Your task to perform on an android device: Turn off the flashlight Image 0: 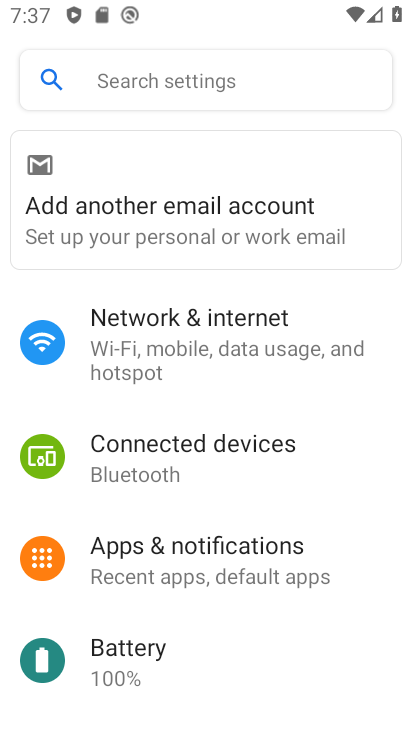
Step 0: press home button
Your task to perform on an android device: Turn off the flashlight Image 1: 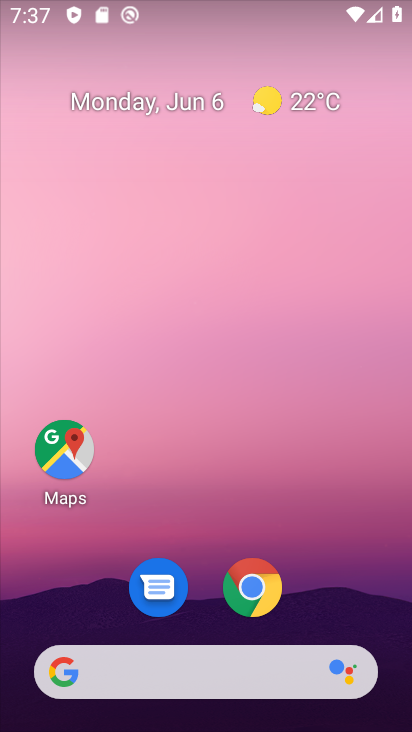
Step 1: drag from (351, 592) to (284, 106)
Your task to perform on an android device: Turn off the flashlight Image 2: 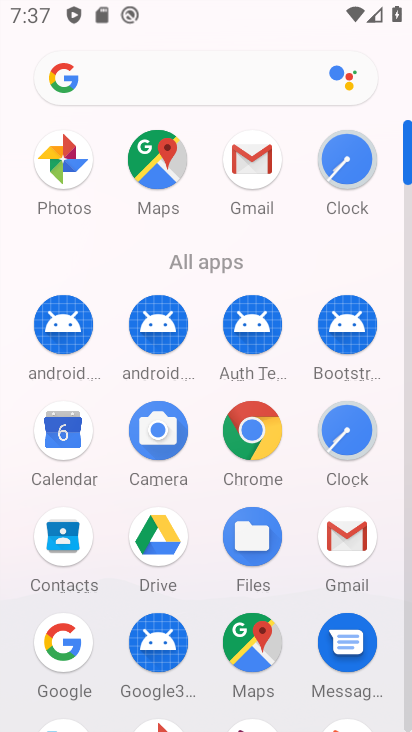
Step 2: drag from (207, 529) to (177, 114)
Your task to perform on an android device: Turn off the flashlight Image 3: 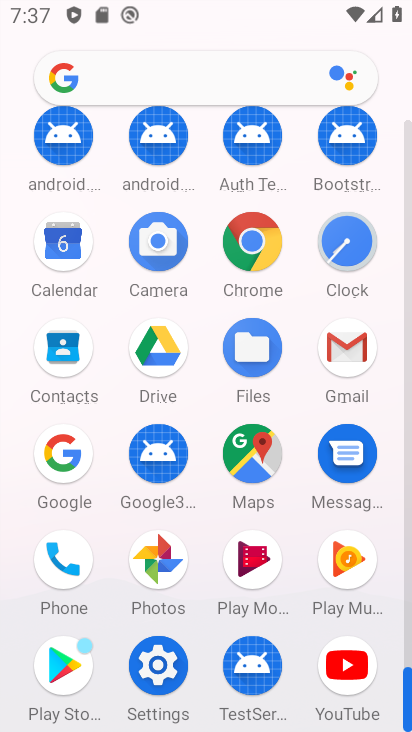
Step 3: click (165, 662)
Your task to perform on an android device: Turn off the flashlight Image 4: 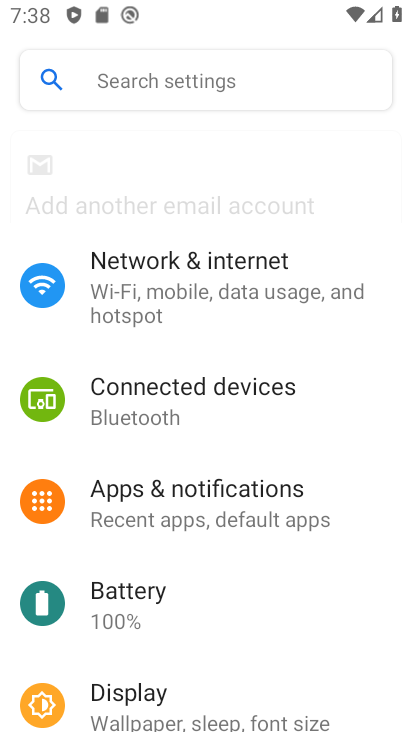
Step 4: click (209, 76)
Your task to perform on an android device: Turn off the flashlight Image 5: 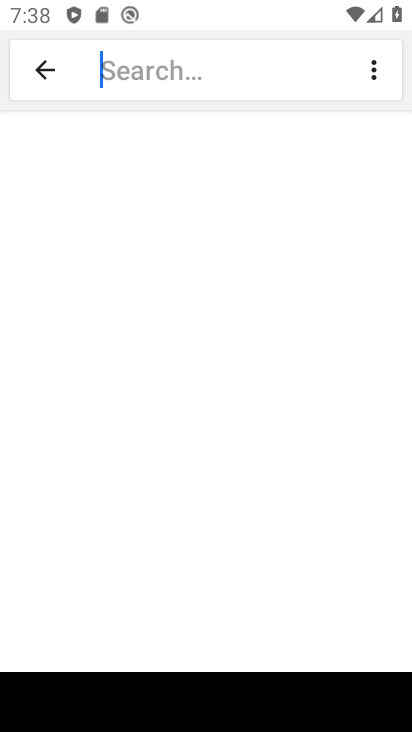
Step 5: type "flash"
Your task to perform on an android device: Turn off the flashlight Image 6: 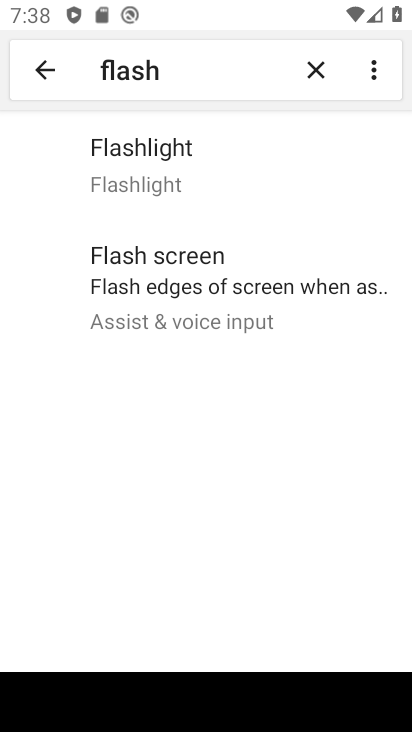
Step 6: task complete